Your task to perform on an android device: change notification settings in the gmail app Image 0: 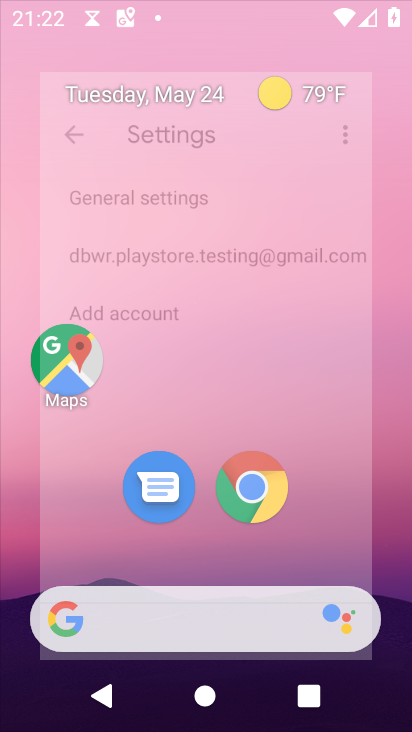
Step 0: press home button
Your task to perform on an android device: change notification settings in the gmail app Image 1: 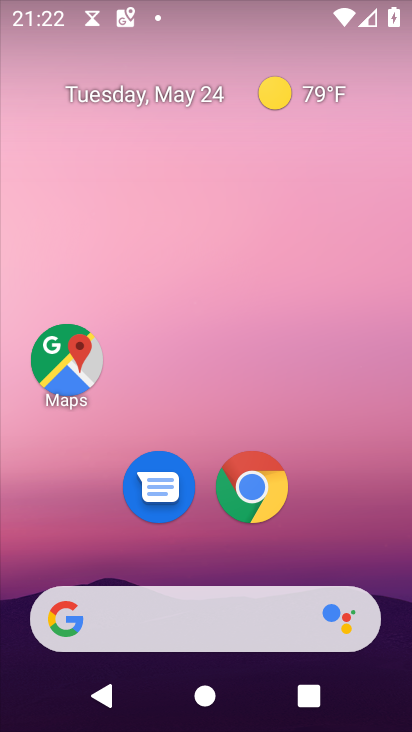
Step 1: drag from (360, 555) to (349, 56)
Your task to perform on an android device: change notification settings in the gmail app Image 2: 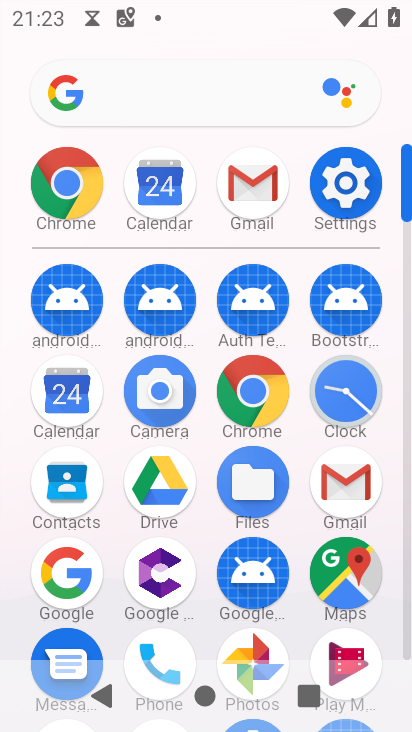
Step 2: click (333, 469)
Your task to perform on an android device: change notification settings in the gmail app Image 3: 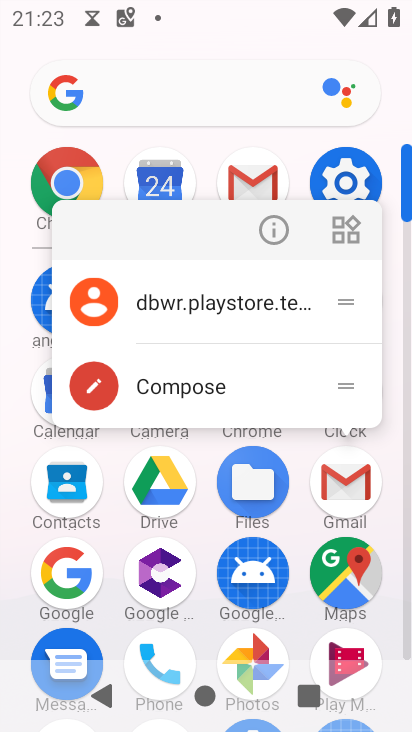
Step 3: click (267, 241)
Your task to perform on an android device: change notification settings in the gmail app Image 4: 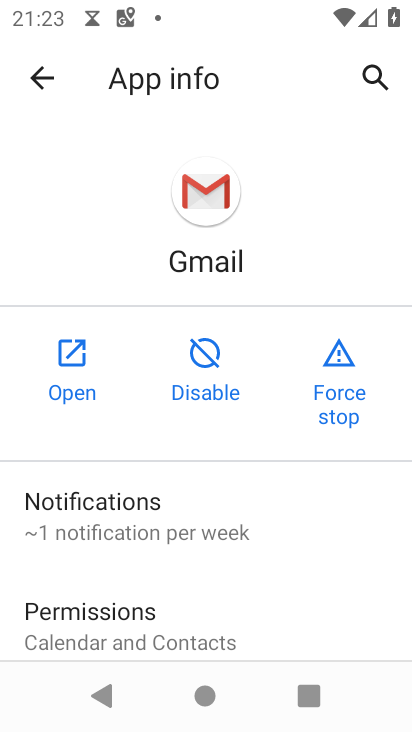
Step 4: click (67, 534)
Your task to perform on an android device: change notification settings in the gmail app Image 5: 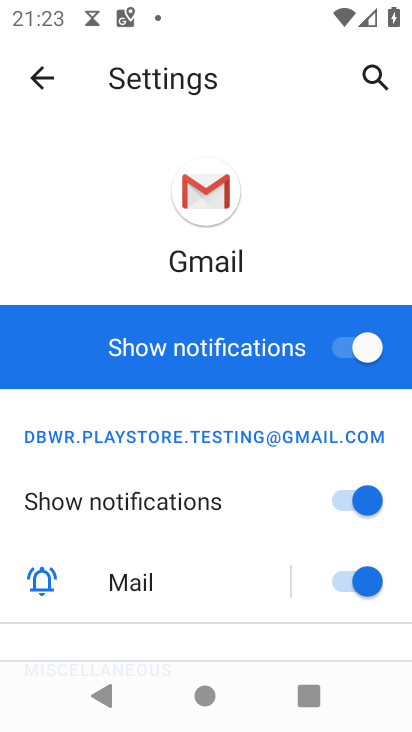
Step 5: click (270, 348)
Your task to perform on an android device: change notification settings in the gmail app Image 6: 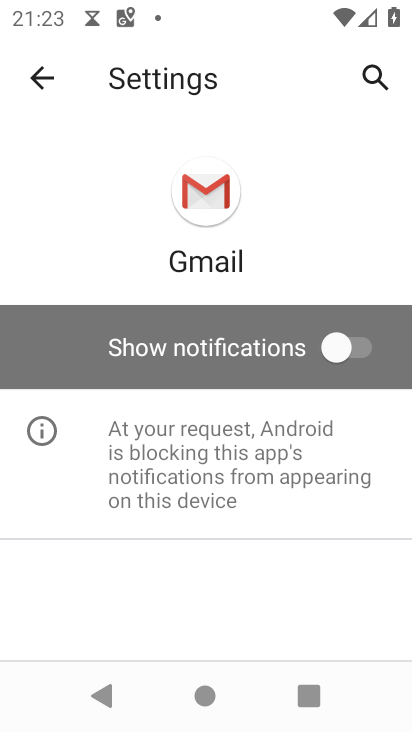
Step 6: task complete